Your task to perform on an android device: turn notification dots on Image 0: 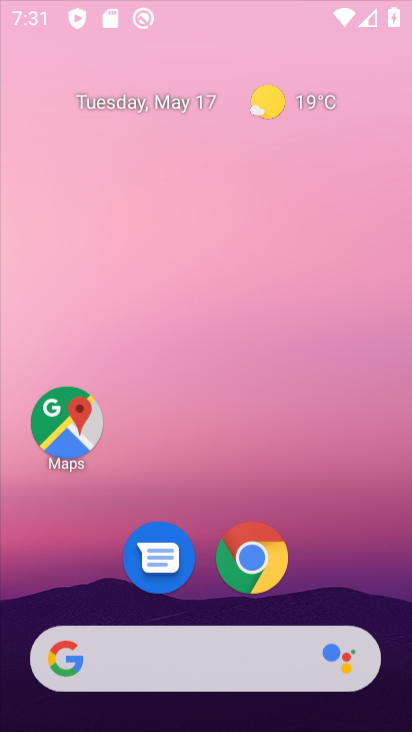
Step 0: press home button
Your task to perform on an android device: turn notification dots on Image 1: 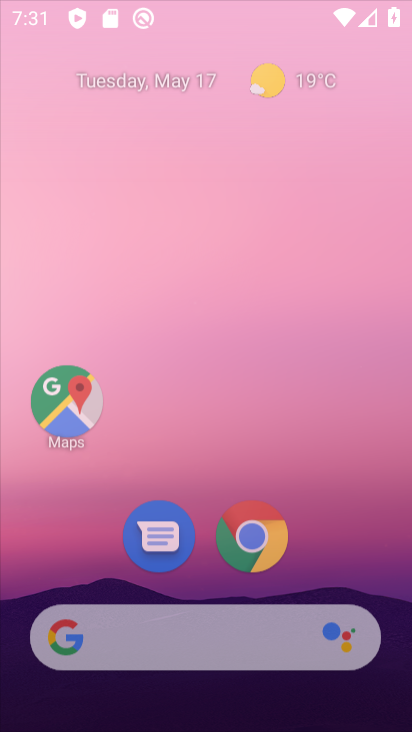
Step 1: drag from (192, 593) to (197, 152)
Your task to perform on an android device: turn notification dots on Image 2: 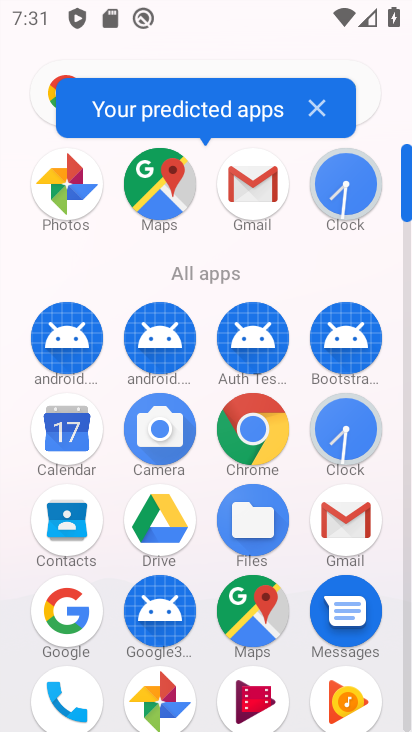
Step 2: drag from (200, 612) to (225, 218)
Your task to perform on an android device: turn notification dots on Image 3: 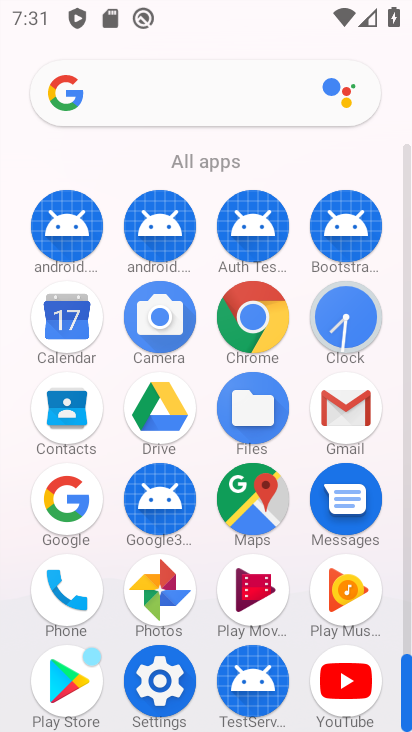
Step 3: click (152, 676)
Your task to perform on an android device: turn notification dots on Image 4: 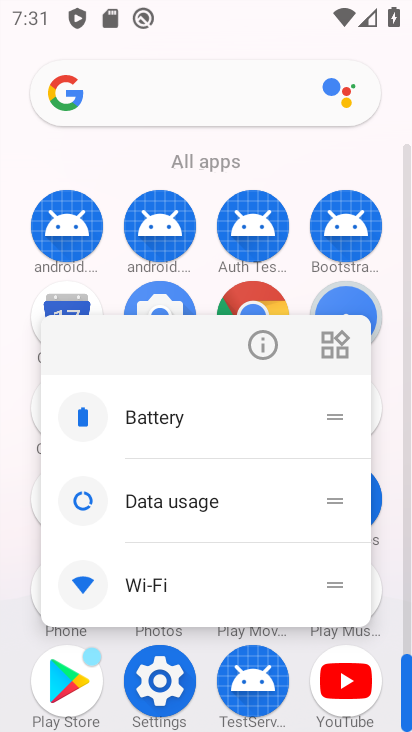
Step 4: click (262, 344)
Your task to perform on an android device: turn notification dots on Image 5: 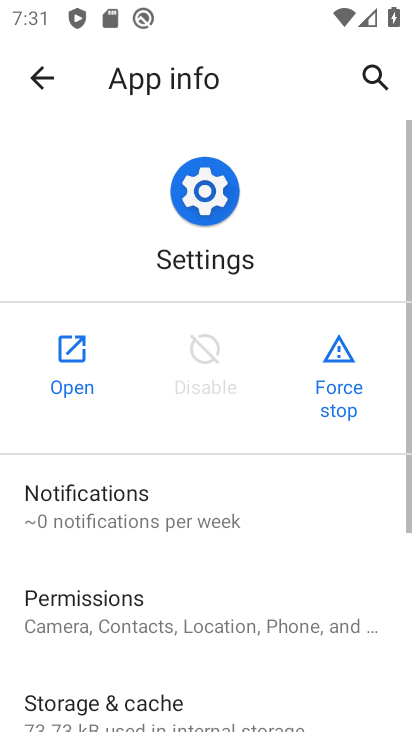
Step 5: click (83, 378)
Your task to perform on an android device: turn notification dots on Image 6: 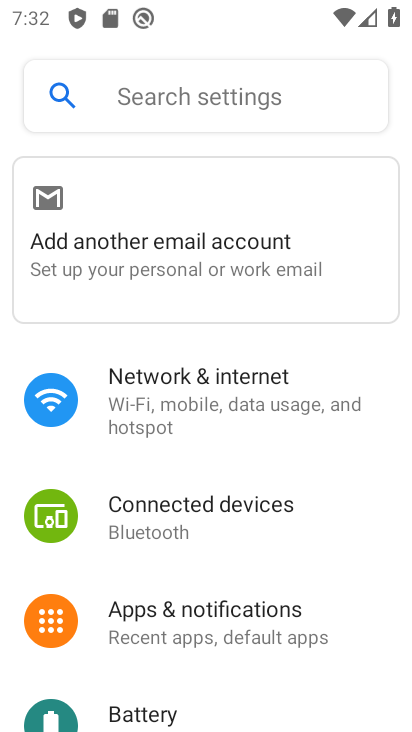
Step 6: click (179, 611)
Your task to perform on an android device: turn notification dots on Image 7: 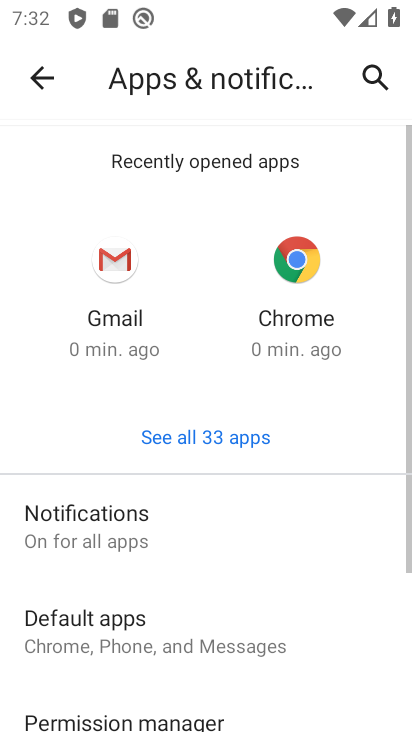
Step 7: click (223, 553)
Your task to perform on an android device: turn notification dots on Image 8: 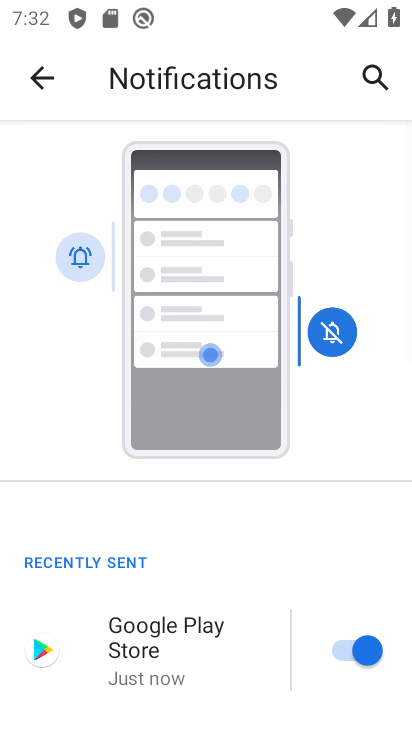
Step 8: drag from (307, 533) to (395, 8)
Your task to perform on an android device: turn notification dots on Image 9: 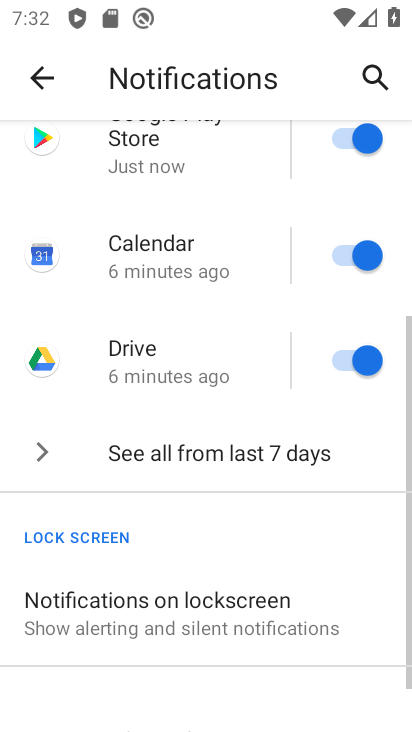
Step 9: drag from (194, 659) to (298, 95)
Your task to perform on an android device: turn notification dots on Image 10: 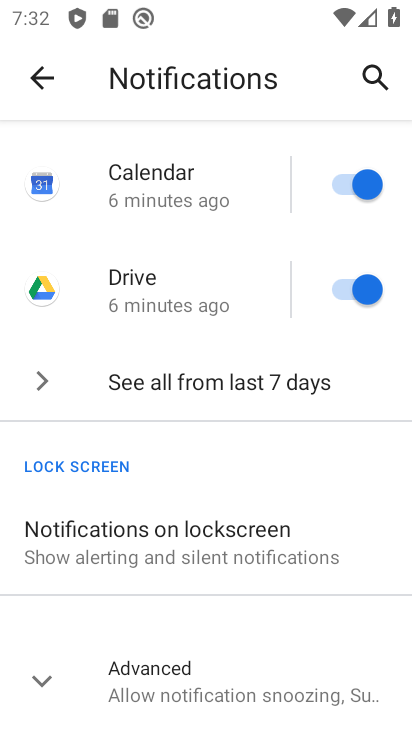
Step 10: click (150, 697)
Your task to perform on an android device: turn notification dots on Image 11: 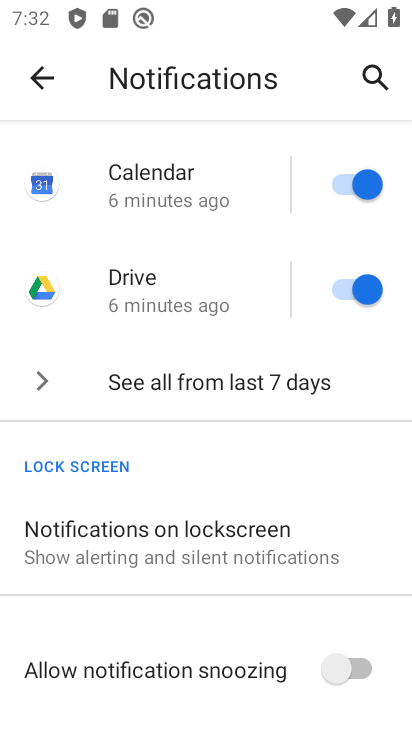
Step 11: drag from (247, 607) to (395, 2)
Your task to perform on an android device: turn notification dots on Image 12: 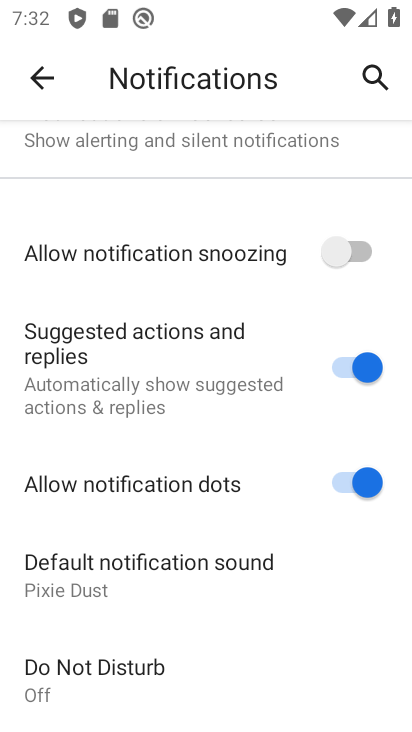
Step 12: click (352, 482)
Your task to perform on an android device: turn notification dots on Image 13: 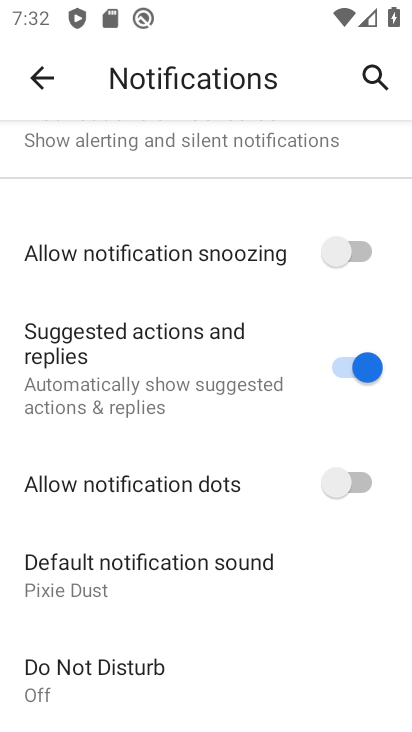
Step 13: task complete